Your task to perform on an android device: toggle notification dots Image 0: 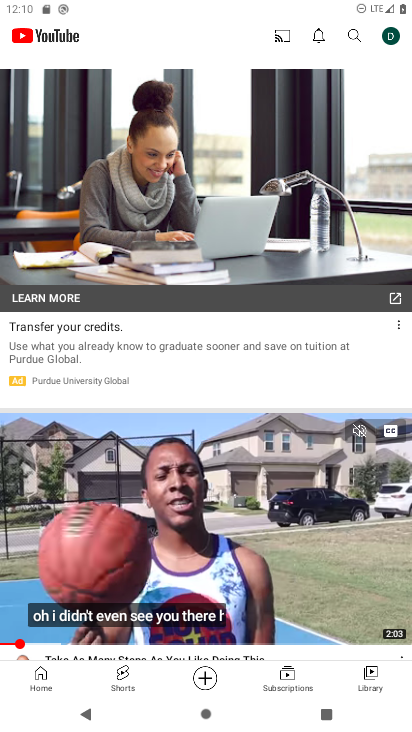
Step 0: press home button
Your task to perform on an android device: toggle notification dots Image 1: 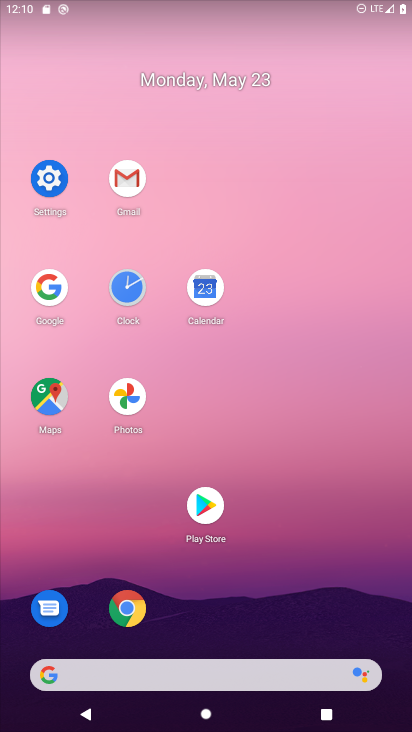
Step 1: click (43, 195)
Your task to perform on an android device: toggle notification dots Image 2: 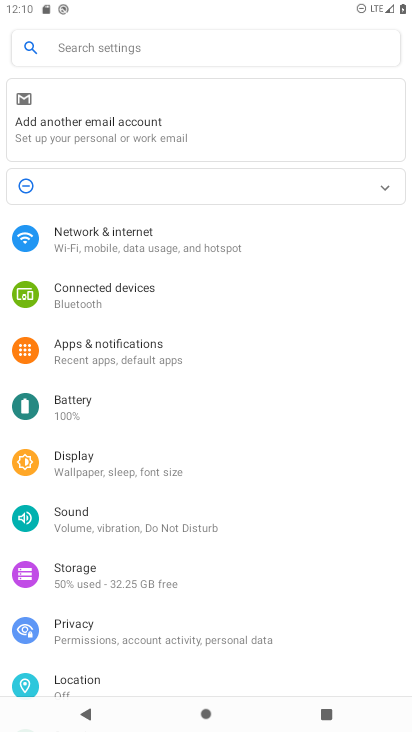
Step 2: click (212, 343)
Your task to perform on an android device: toggle notification dots Image 3: 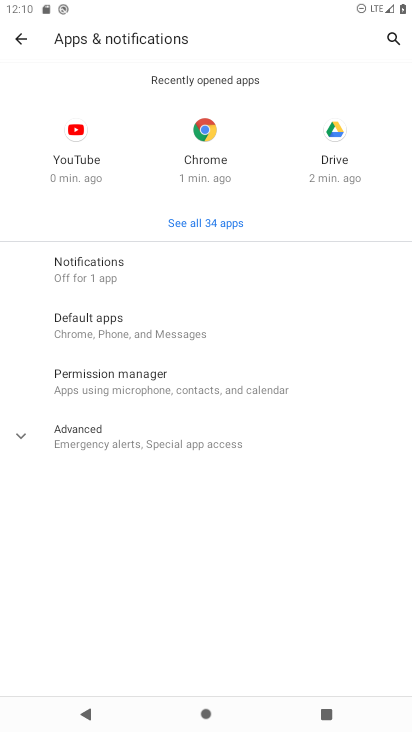
Step 3: click (85, 277)
Your task to perform on an android device: toggle notification dots Image 4: 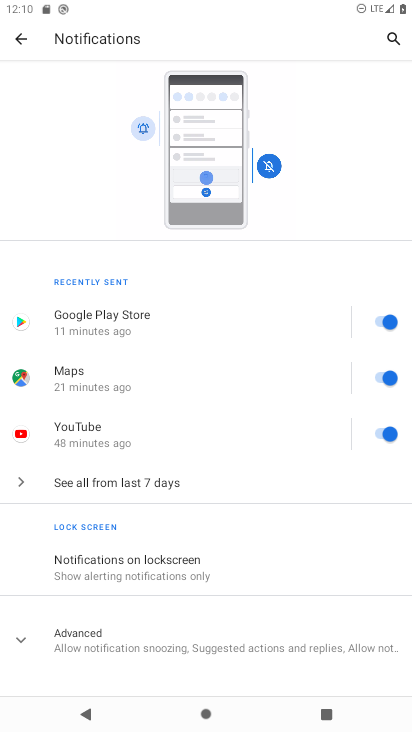
Step 4: click (178, 638)
Your task to perform on an android device: toggle notification dots Image 5: 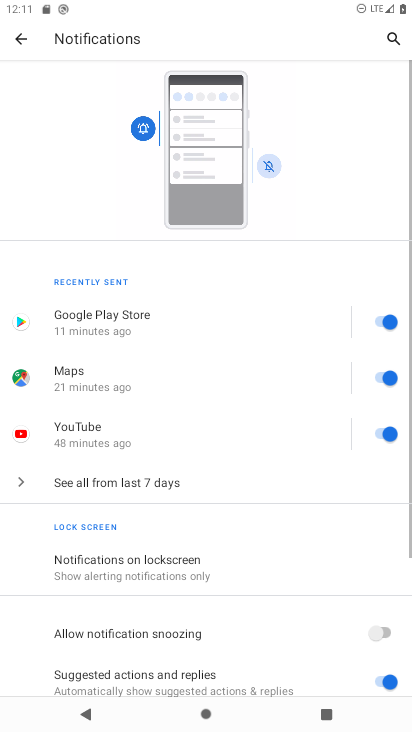
Step 5: drag from (167, 616) to (123, 241)
Your task to perform on an android device: toggle notification dots Image 6: 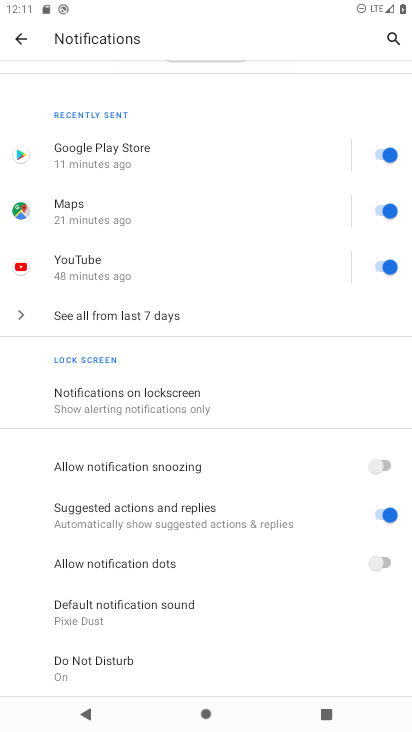
Step 6: click (368, 560)
Your task to perform on an android device: toggle notification dots Image 7: 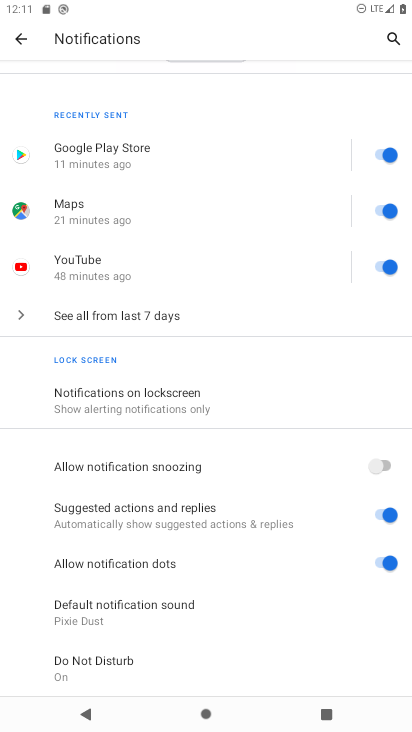
Step 7: task complete